Your task to perform on an android device: Open Chrome and go to settings Image 0: 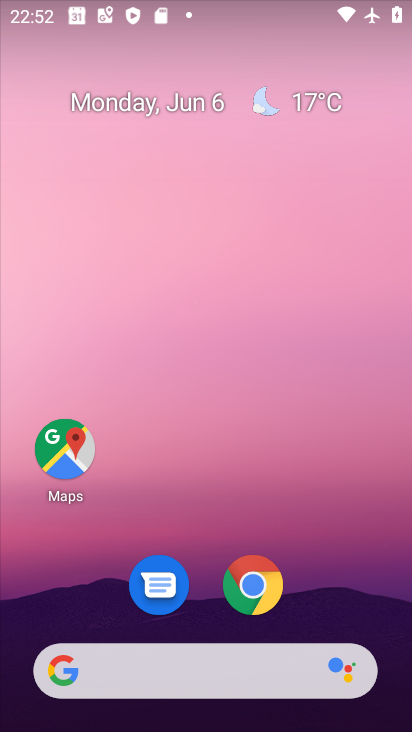
Step 0: click (247, 570)
Your task to perform on an android device: Open Chrome and go to settings Image 1: 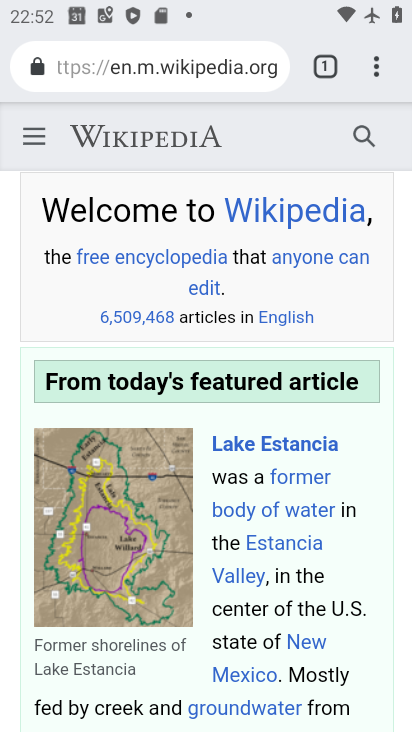
Step 1: click (374, 71)
Your task to perform on an android device: Open Chrome and go to settings Image 2: 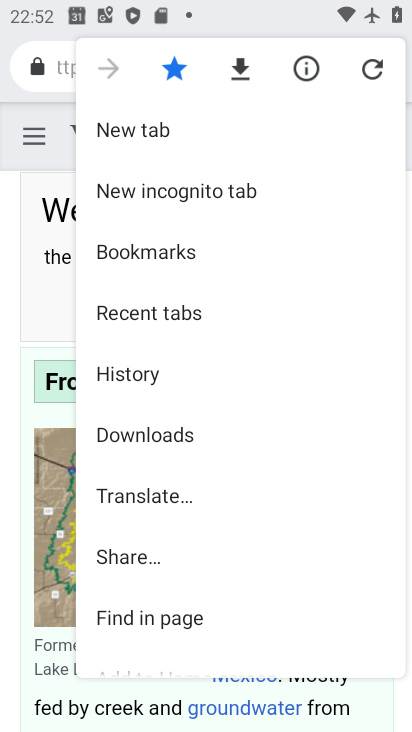
Step 2: drag from (231, 522) to (286, 164)
Your task to perform on an android device: Open Chrome and go to settings Image 3: 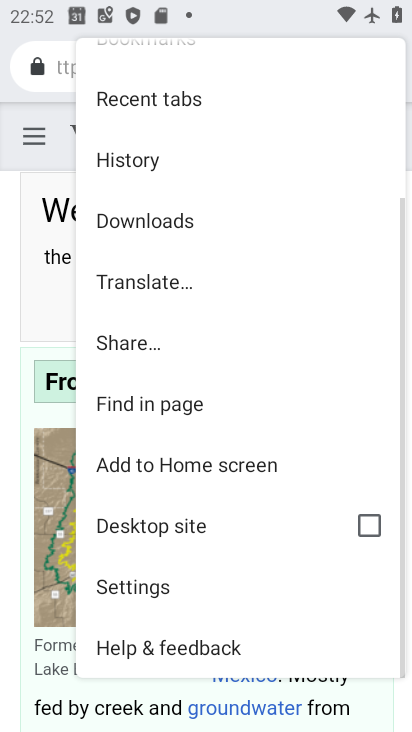
Step 3: click (186, 572)
Your task to perform on an android device: Open Chrome and go to settings Image 4: 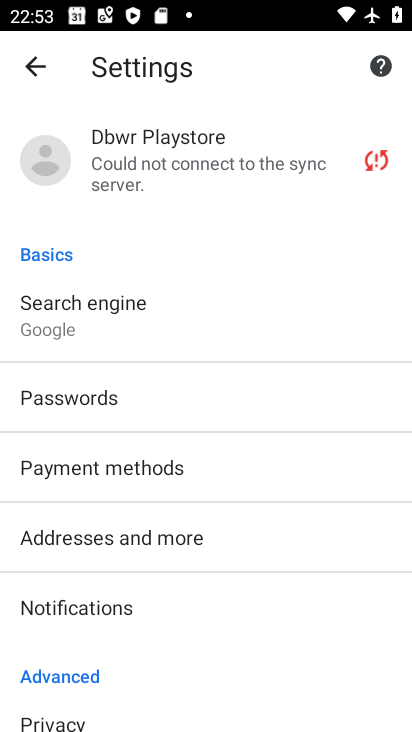
Step 4: task complete